Your task to perform on an android device: make emails show in primary in the gmail app Image 0: 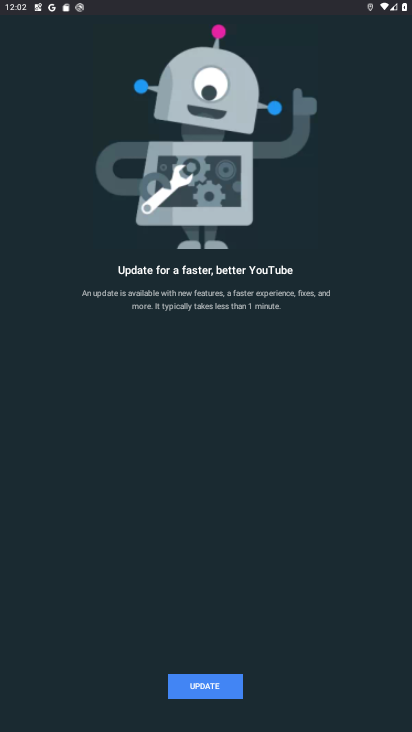
Step 0: press home button
Your task to perform on an android device: make emails show in primary in the gmail app Image 1: 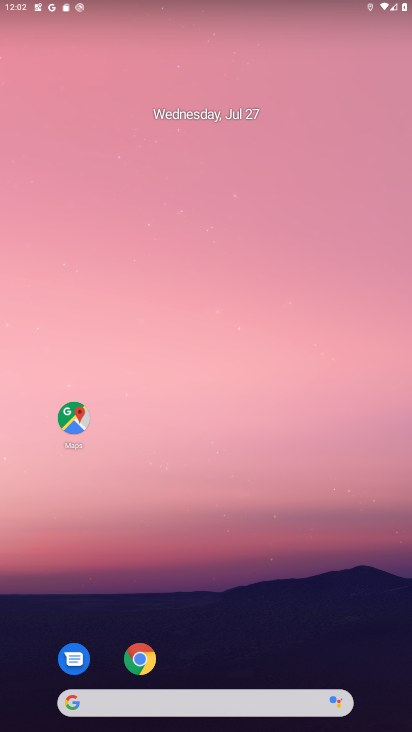
Step 1: drag from (257, 690) to (300, 3)
Your task to perform on an android device: make emails show in primary in the gmail app Image 2: 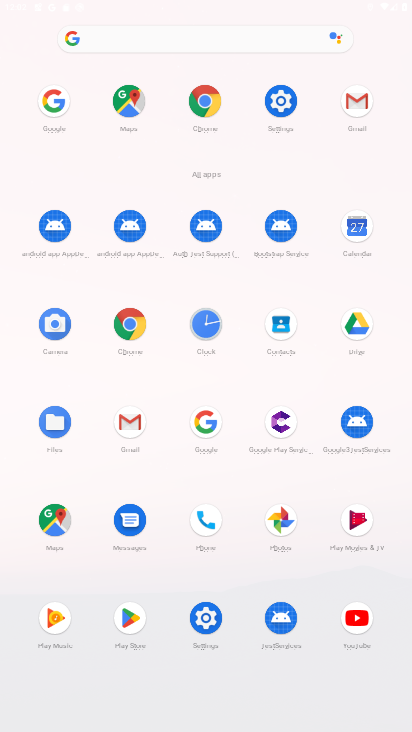
Step 2: click (132, 422)
Your task to perform on an android device: make emails show in primary in the gmail app Image 3: 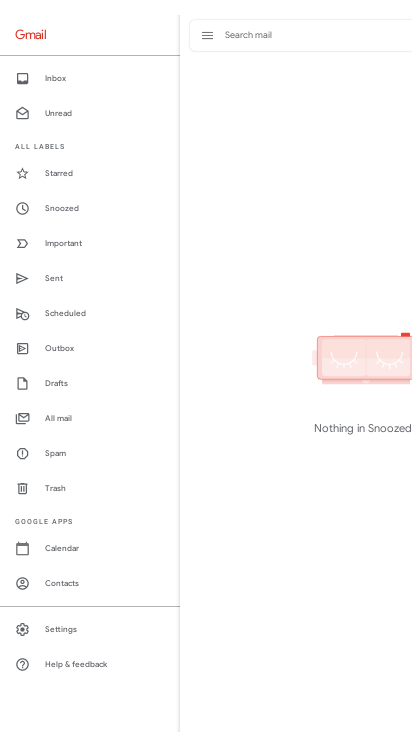
Step 3: click (49, 630)
Your task to perform on an android device: make emails show in primary in the gmail app Image 4: 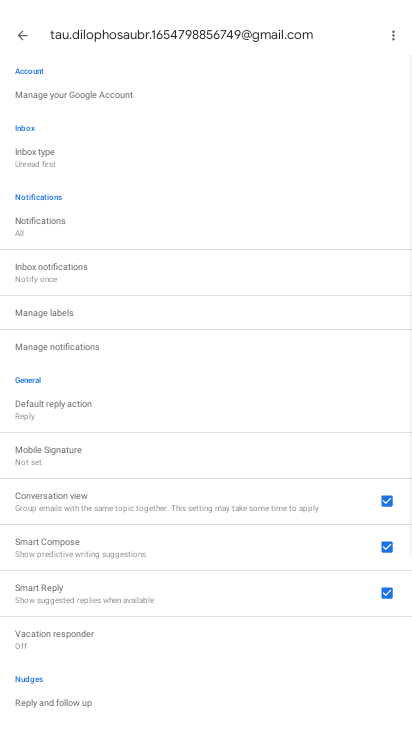
Step 4: click (48, 165)
Your task to perform on an android device: make emails show in primary in the gmail app Image 5: 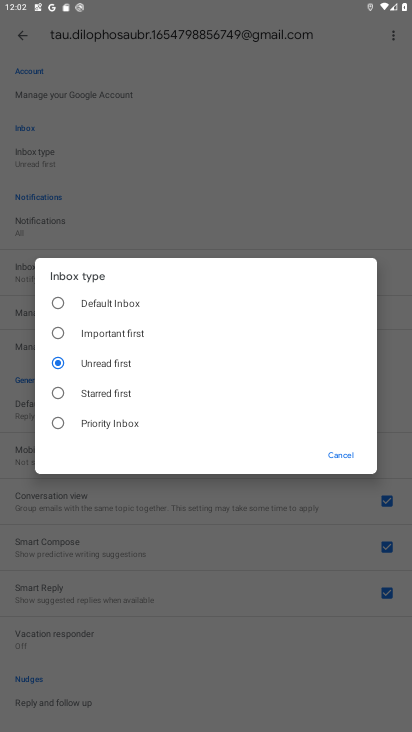
Step 5: click (54, 302)
Your task to perform on an android device: make emails show in primary in the gmail app Image 6: 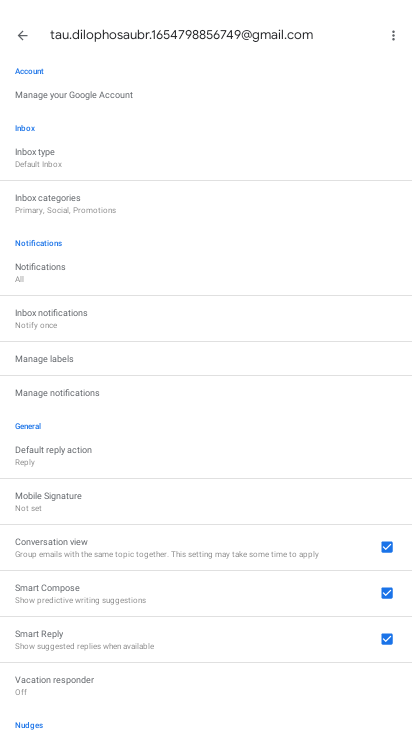
Step 6: task complete